Your task to perform on an android device: set default search engine in the chrome app Image 0: 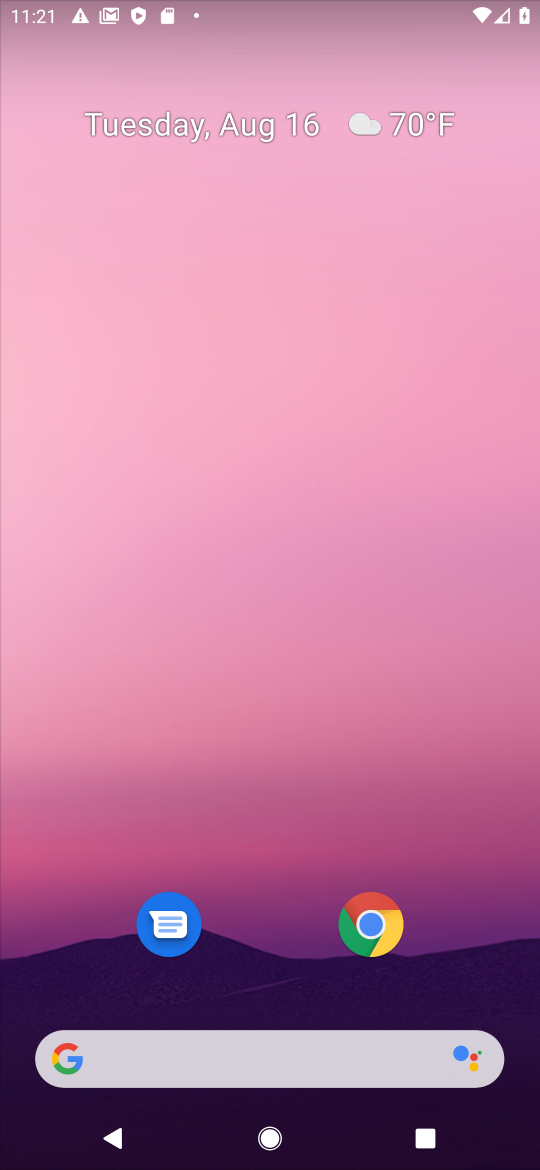
Step 0: click (374, 939)
Your task to perform on an android device: set default search engine in the chrome app Image 1: 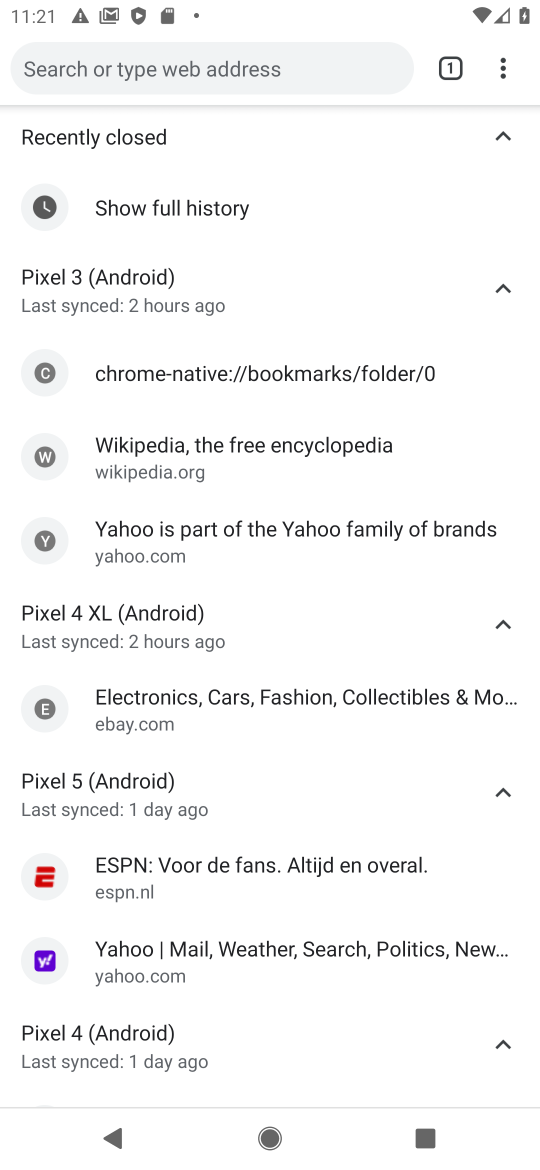
Step 1: click (510, 72)
Your task to perform on an android device: set default search engine in the chrome app Image 2: 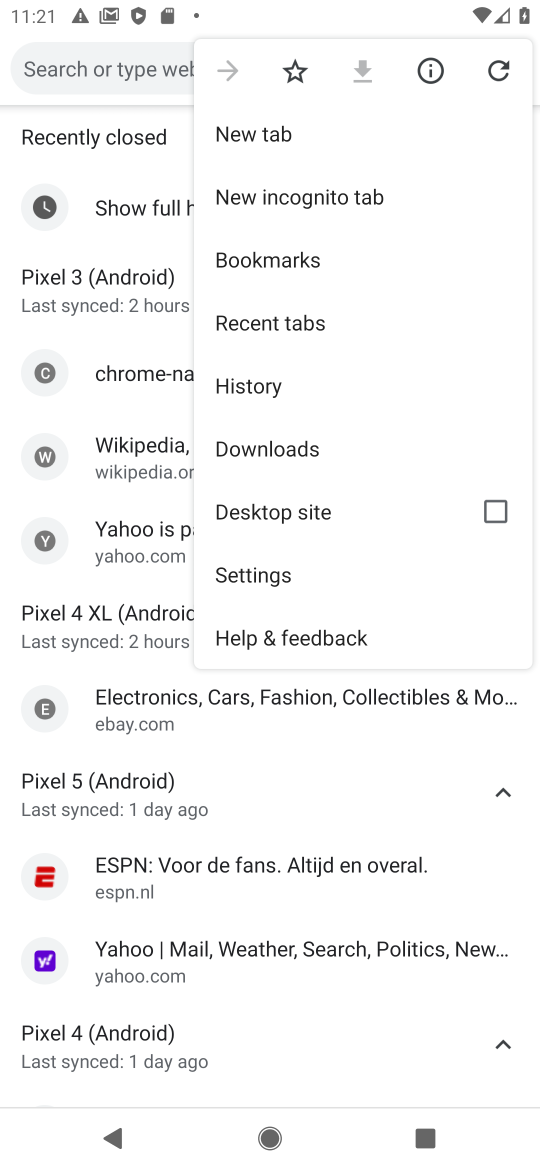
Step 2: click (322, 577)
Your task to perform on an android device: set default search engine in the chrome app Image 3: 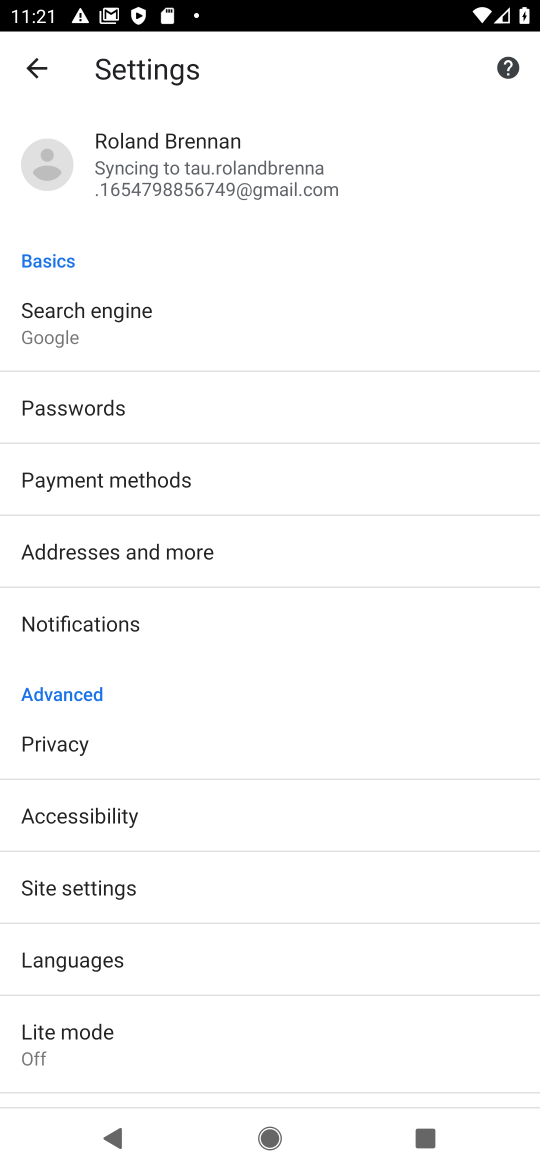
Step 3: click (200, 349)
Your task to perform on an android device: set default search engine in the chrome app Image 4: 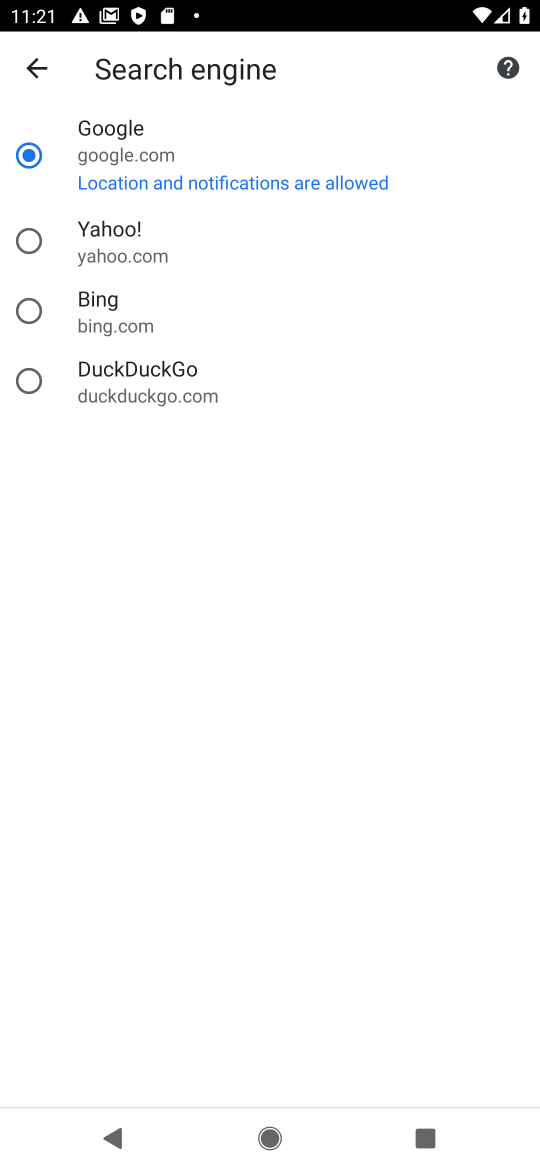
Step 4: click (200, 349)
Your task to perform on an android device: set default search engine in the chrome app Image 5: 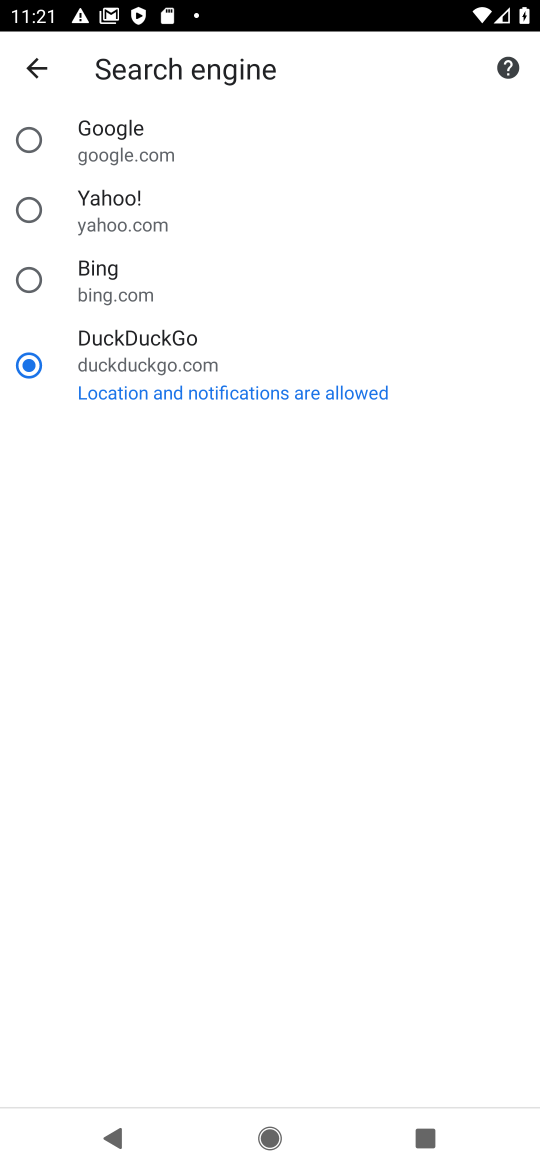
Step 5: task complete